Your task to perform on an android device: uninstall "Google Maps" Image 0: 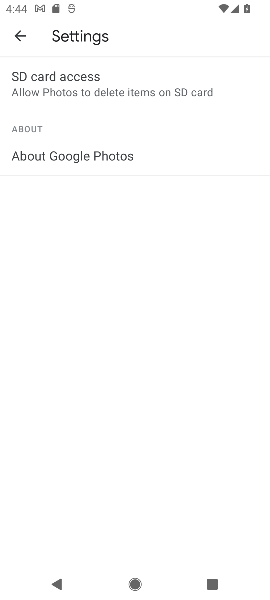
Step 0: press home button
Your task to perform on an android device: uninstall "Google Maps" Image 1: 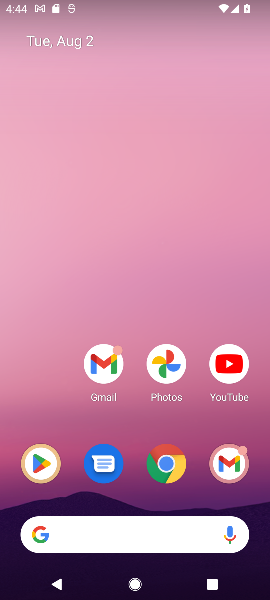
Step 1: click (36, 456)
Your task to perform on an android device: uninstall "Google Maps" Image 2: 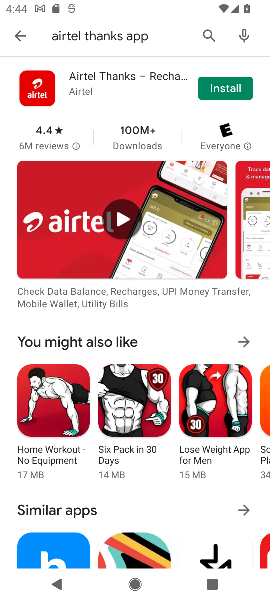
Step 2: click (209, 33)
Your task to perform on an android device: uninstall "Google Maps" Image 3: 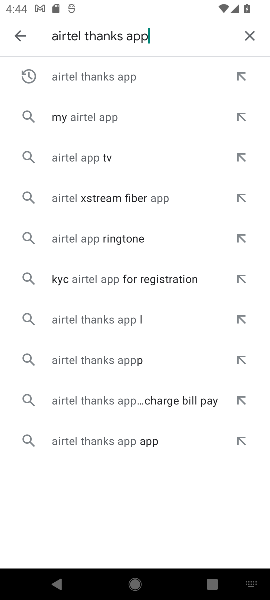
Step 3: click (245, 32)
Your task to perform on an android device: uninstall "Google Maps" Image 4: 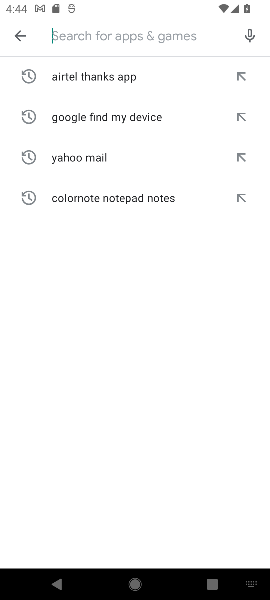
Step 4: type "Google Maps"
Your task to perform on an android device: uninstall "Google Maps" Image 5: 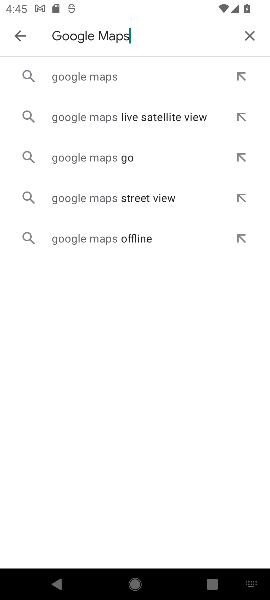
Step 5: click (109, 75)
Your task to perform on an android device: uninstall "Google Maps" Image 6: 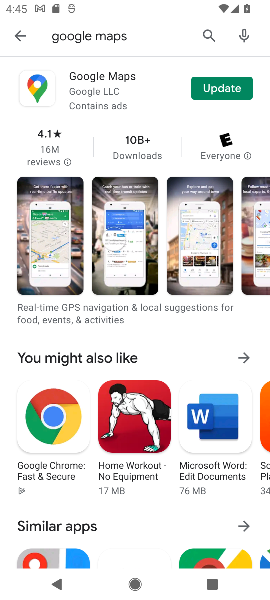
Step 6: click (64, 86)
Your task to perform on an android device: uninstall "Google Maps" Image 7: 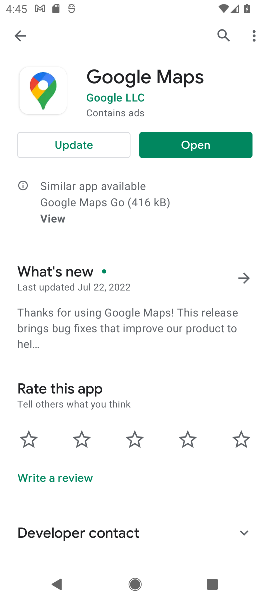
Step 7: task complete